Your task to perform on an android device: snooze an email in the gmail app Image 0: 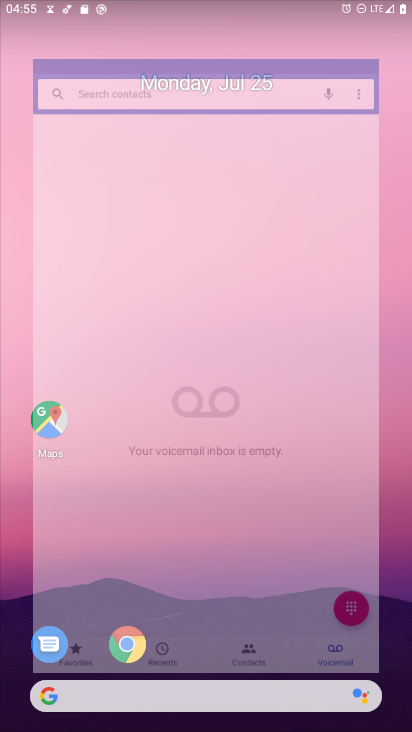
Step 0: press home button
Your task to perform on an android device: snooze an email in the gmail app Image 1: 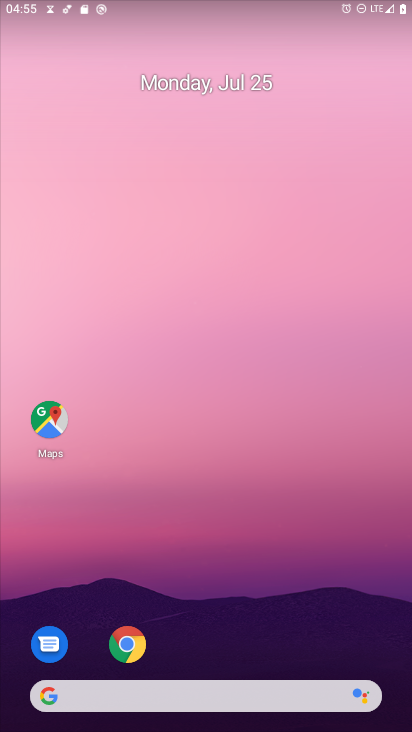
Step 1: drag from (317, 634) to (288, 59)
Your task to perform on an android device: snooze an email in the gmail app Image 2: 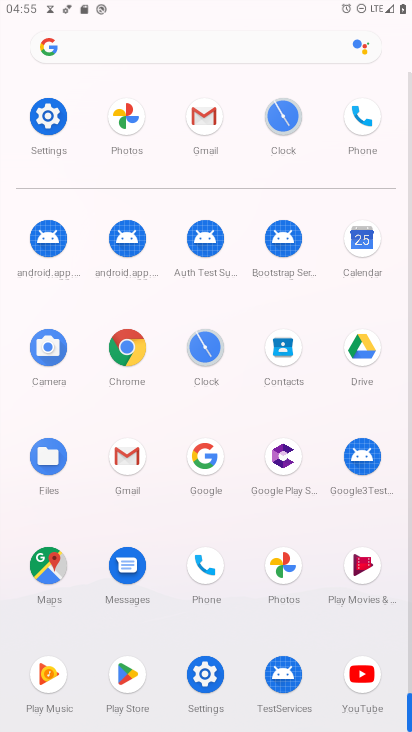
Step 2: click (193, 102)
Your task to perform on an android device: snooze an email in the gmail app Image 3: 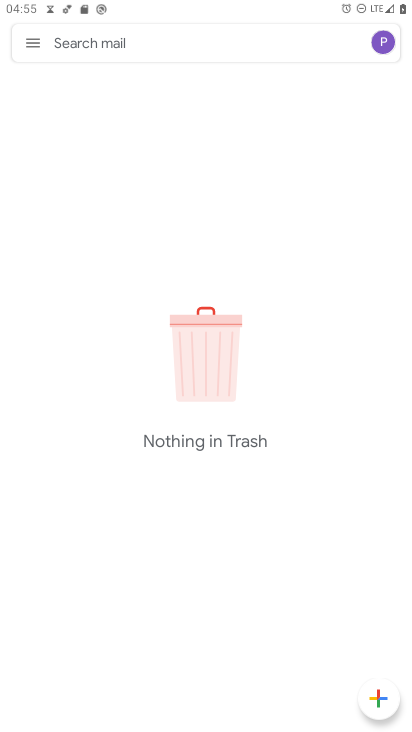
Step 3: click (20, 35)
Your task to perform on an android device: snooze an email in the gmail app Image 4: 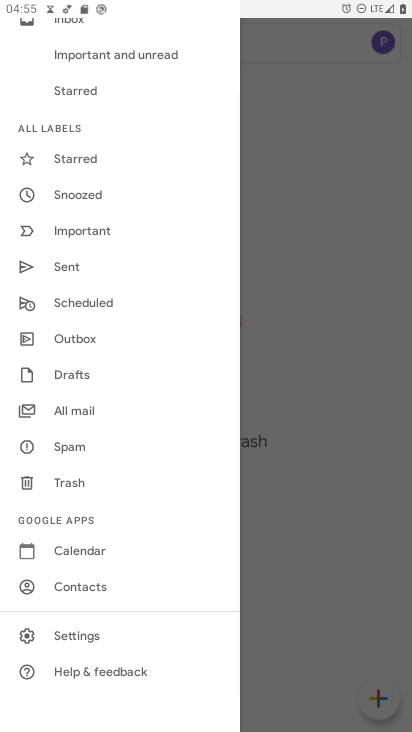
Step 4: click (82, 196)
Your task to perform on an android device: snooze an email in the gmail app Image 5: 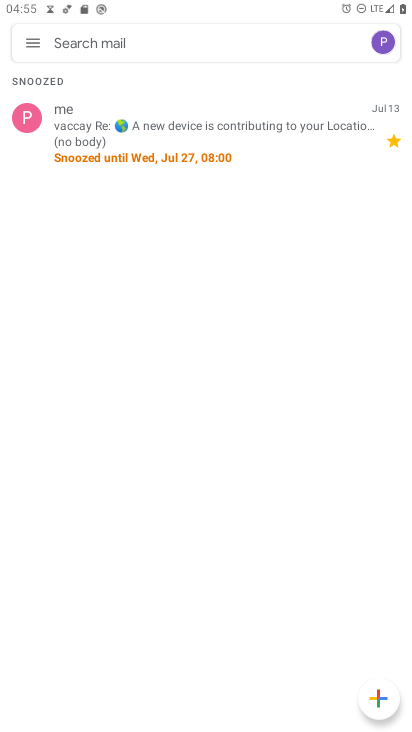
Step 5: task complete